Your task to perform on an android device: Open the Play Movies app and select the watchlist tab. Image 0: 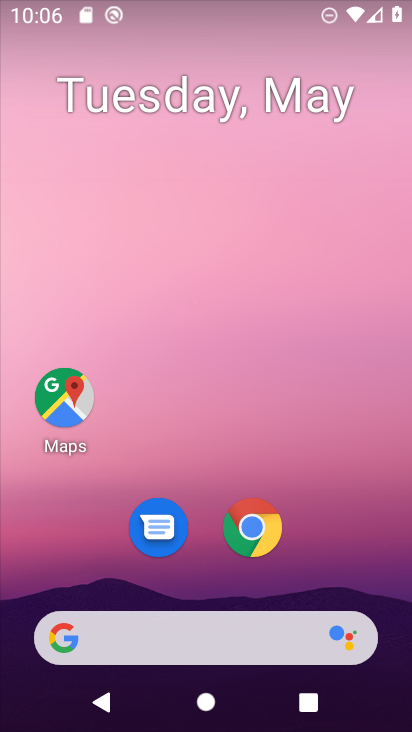
Step 0: drag from (328, 523) to (304, 54)
Your task to perform on an android device: Open the Play Movies app and select the watchlist tab. Image 1: 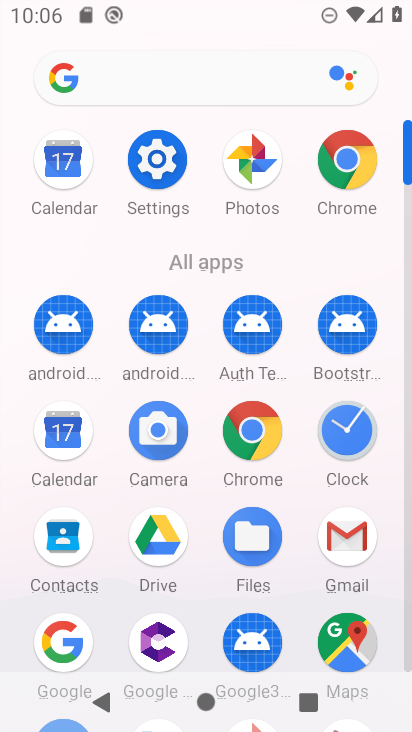
Step 1: drag from (307, 454) to (291, 224)
Your task to perform on an android device: Open the Play Movies app and select the watchlist tab. Image 2: 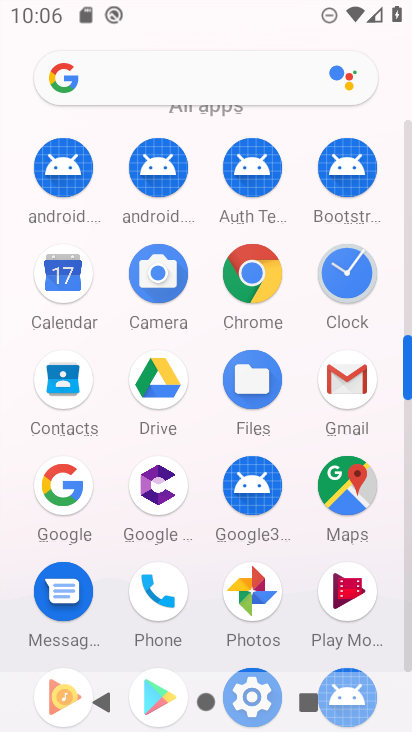
Step 2: drag from (290, 589) to (282, 427)
Your task to perform on an android device: Open the Play Movies app and select the watchlist tab. Image 3: 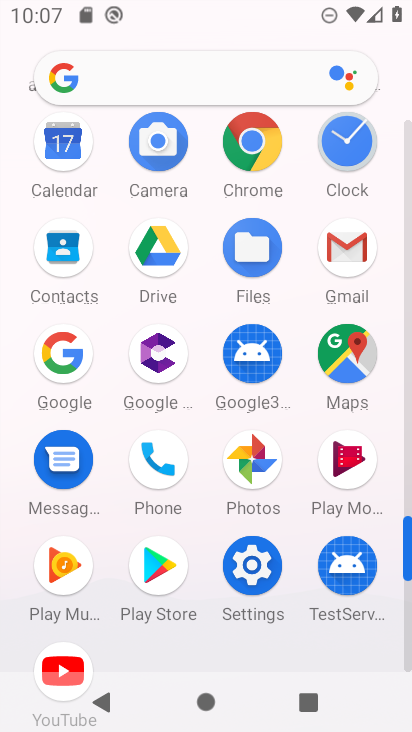
Step 3: click (347, 460)
Your task to perform on an android device: Open the Play Movies app and select the watchlist tab. Image 4: 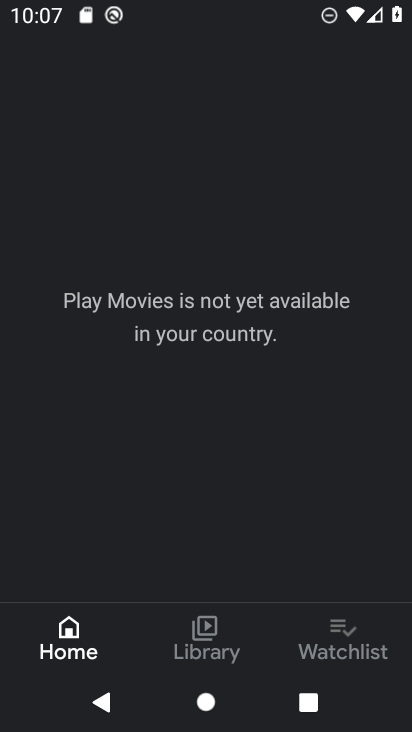
Step 4: click (339, 632)
Your task to perform on an android device: Open the Play Movies app and select the watchlist tab. Image 5: 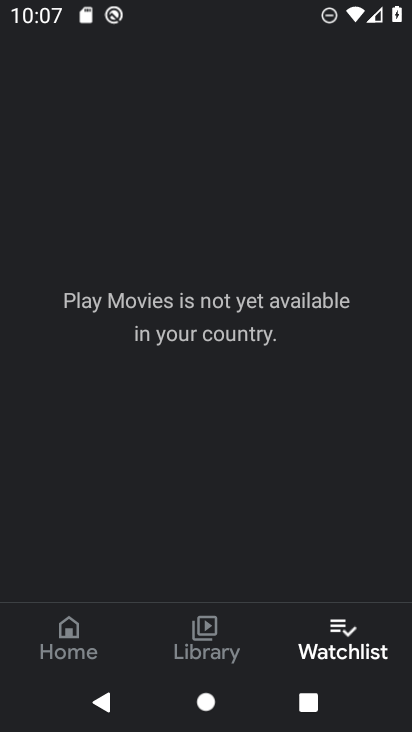
Step 5: task complete